Your task to perform on an android device: Open notification settings Image 0: 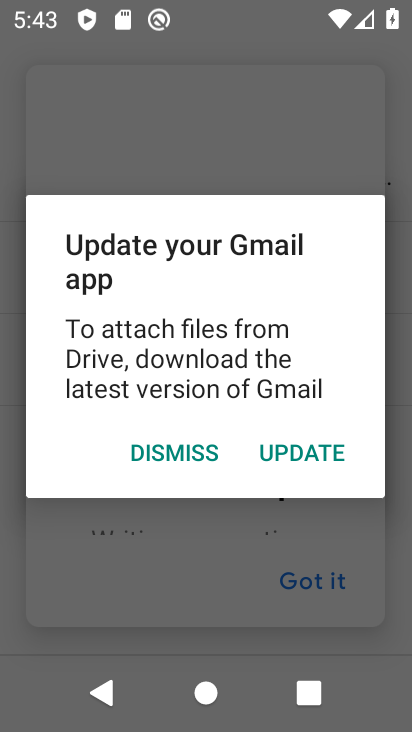
Step 0: press home button
Your task to perform on an android device: Open notification settings Image 1: 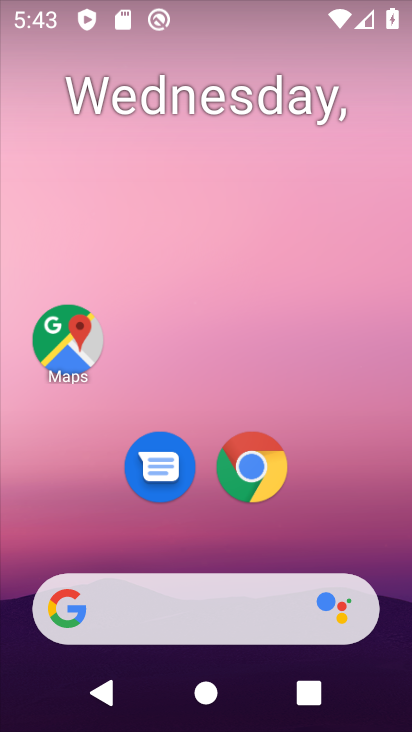
Step 1: drag from (322, 512) to (315, 63)
Your task to perform on an android device: Open notification settings Image 2: 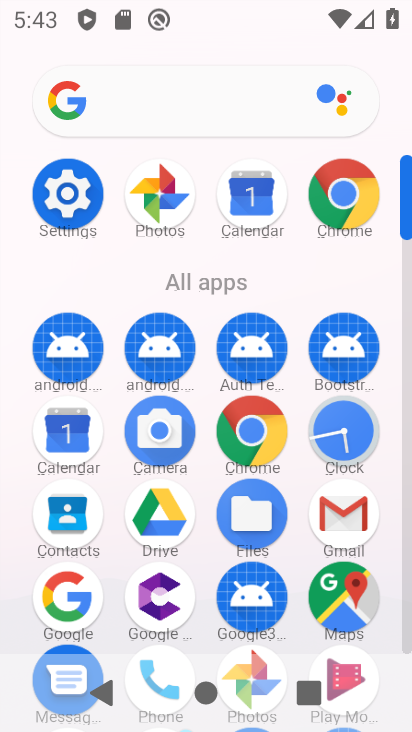
Step 2: click (76, 194)
Your task to perform on an android device: Open notification settings Image 3: 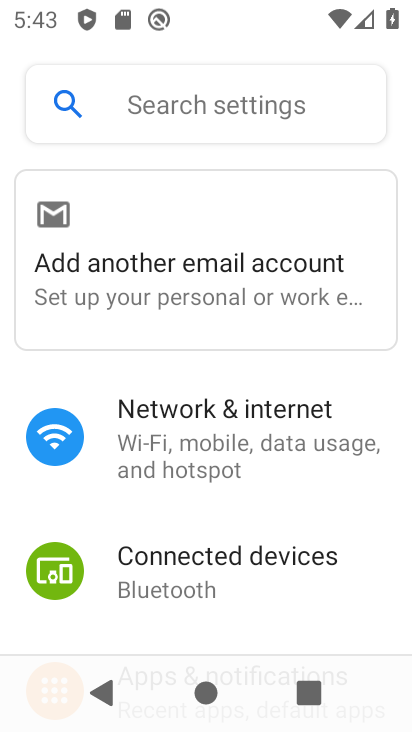
Step 3: drag from (248, 602) to (252, 148)
Your task to perform on an android device: Open notification settings Image 4: 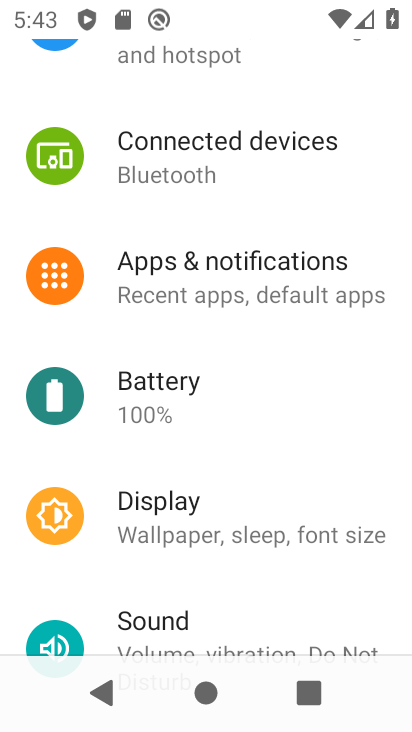
Step 4: click (253, 272)
Your task to perform on an android device: Open notification settings Image 5: 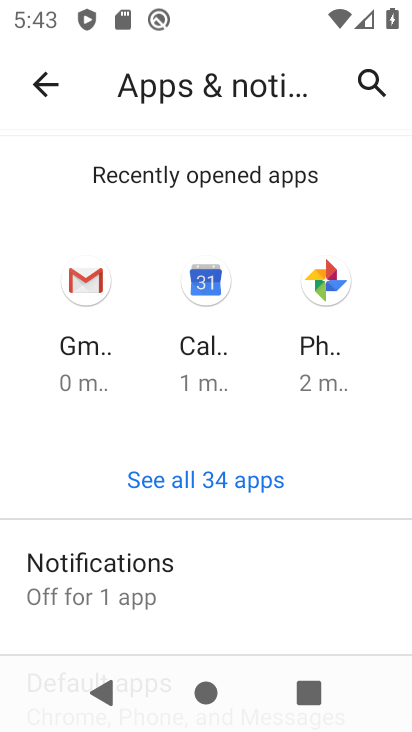
Step 5: click (111, 577)
Your task to perform on an android device: Open notification settings Image 6: 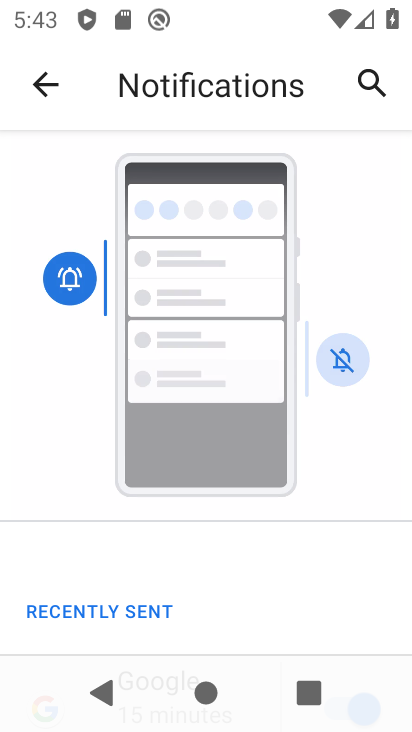
Step 6: task complete